Your task to perform on an android device: Go to settings Image 0: 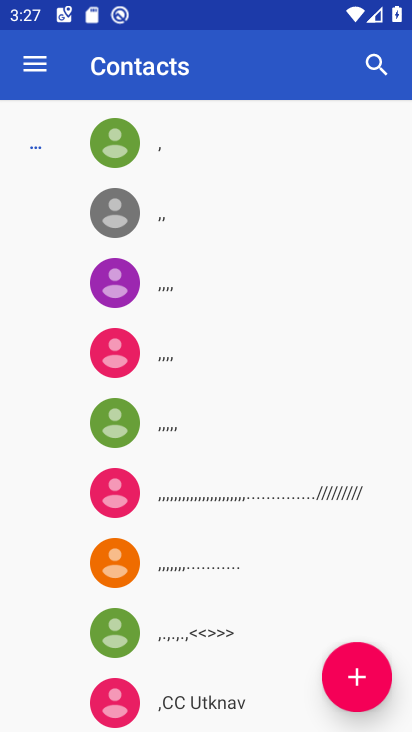
Step 0: press home button
Your task to perform on an android device: Go to settings Image 1: 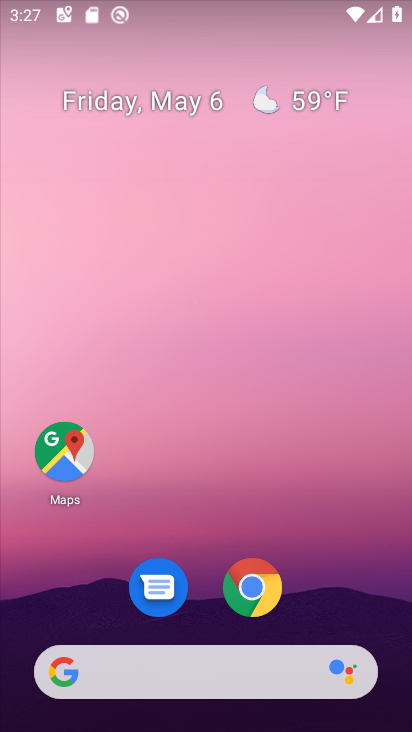
Step 1: drag from (279, 533) to (265, 16)
Your task to perform on an android device: Go to settings Image 2: 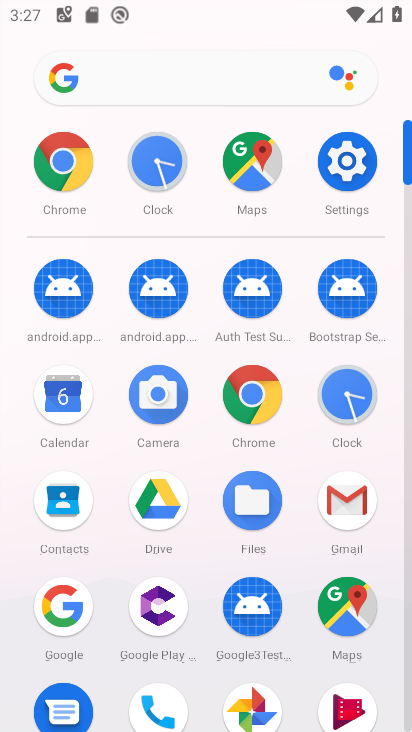
Step 2: click (342, 160)
Your task to perform on an android device: Go to settings Image 3: 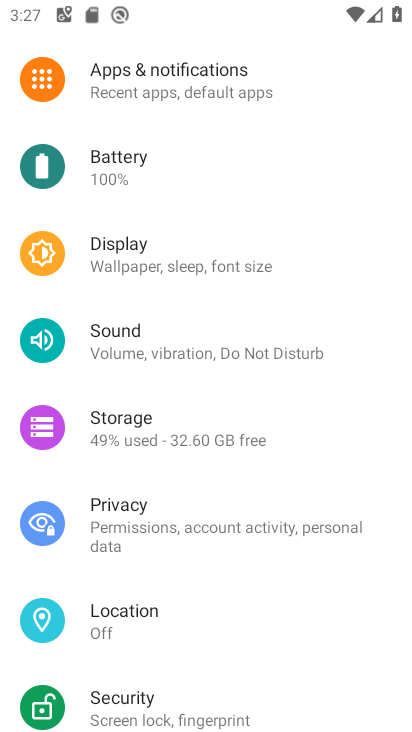
Step 3: task complete